Your task to perform on an android device: open app "Etsy: Buy & Sell Unique Items" (install if not already installed) and go to login screen Image 0: 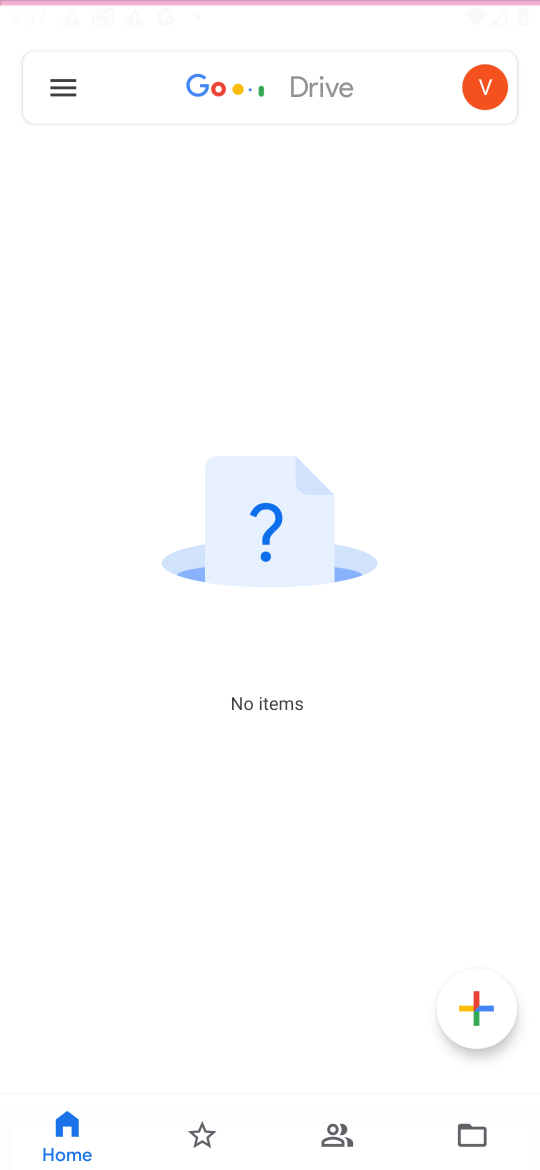
Step 0: press home button
Your task to perform on an android device: open app "Etsy: Buy & Sell Unique Items" (install if not already installed) and go to login screen Image 1: 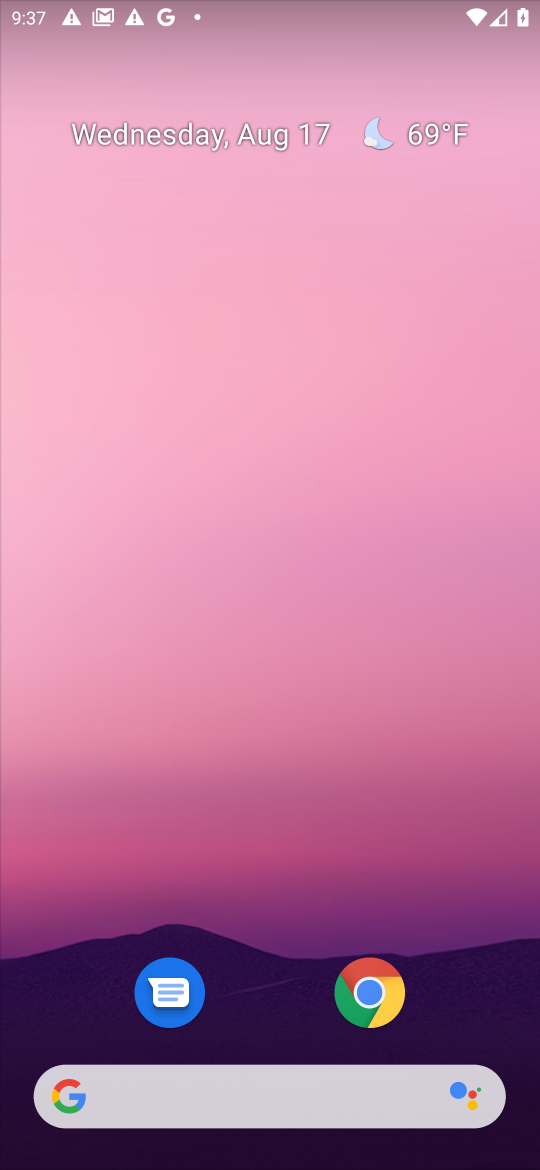
Step 1: drag from (469, 992) to (224, 63)
Your task to perform on an android device: open app "Etsy: Buy & Sell Unique Items" (install if not already installed) and go to login screen Image 2: 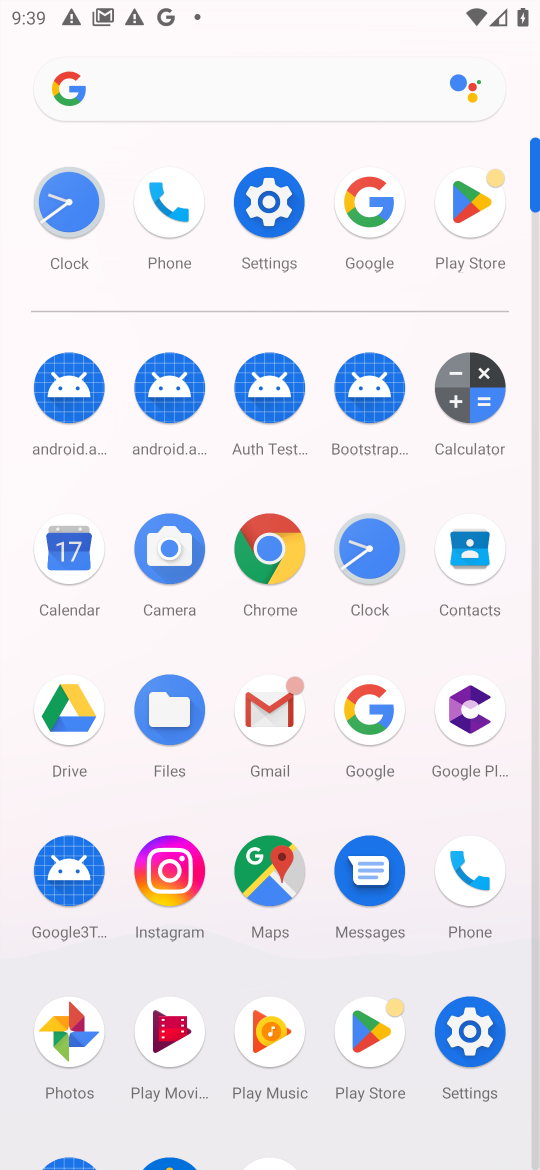
Step 2: click (364, 1047)
Your task to perform on an android device: open app "Etsy: Buy & Sell Unique Items" (install if not already installed) and go to login screen Image 3: 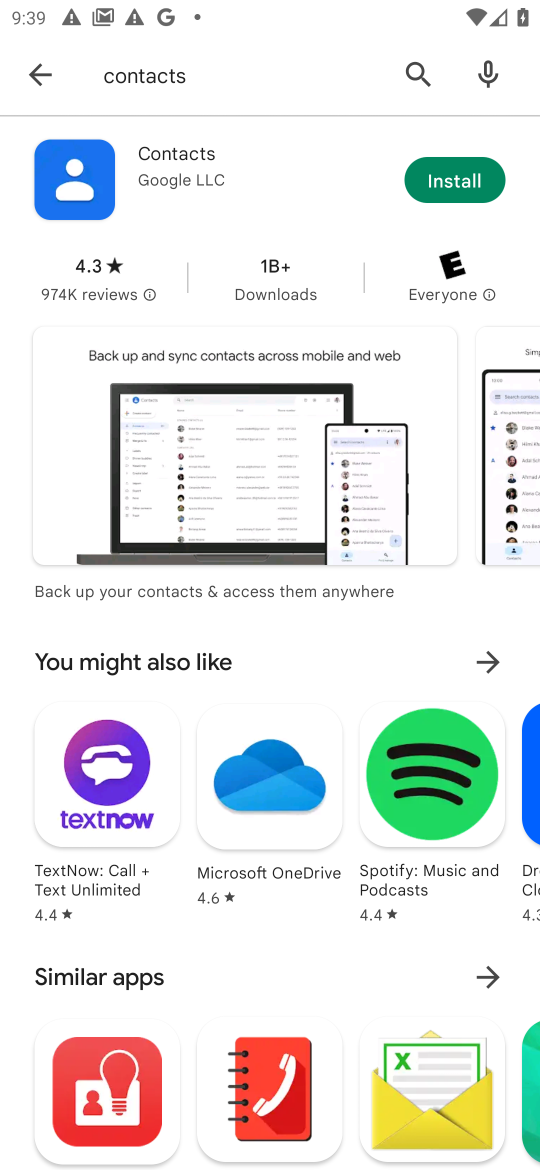
Step 3: press back button
Your task to perform on an android device: open app "Etsy: Buy & Sell Unique Items" (install if not already installed) and go to login screen Image 4: 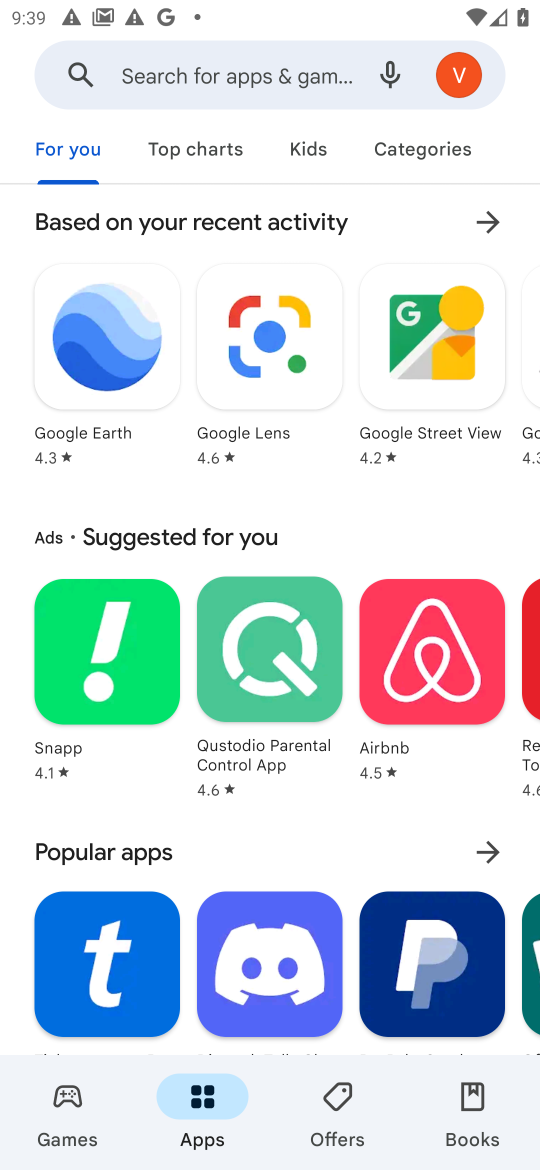
Step 4: click (144, 69)
Your task to perform on an android device: open app "Etsy: Buy & Sell Unique Items" (install if not already installed) and go to login screen Image 5: 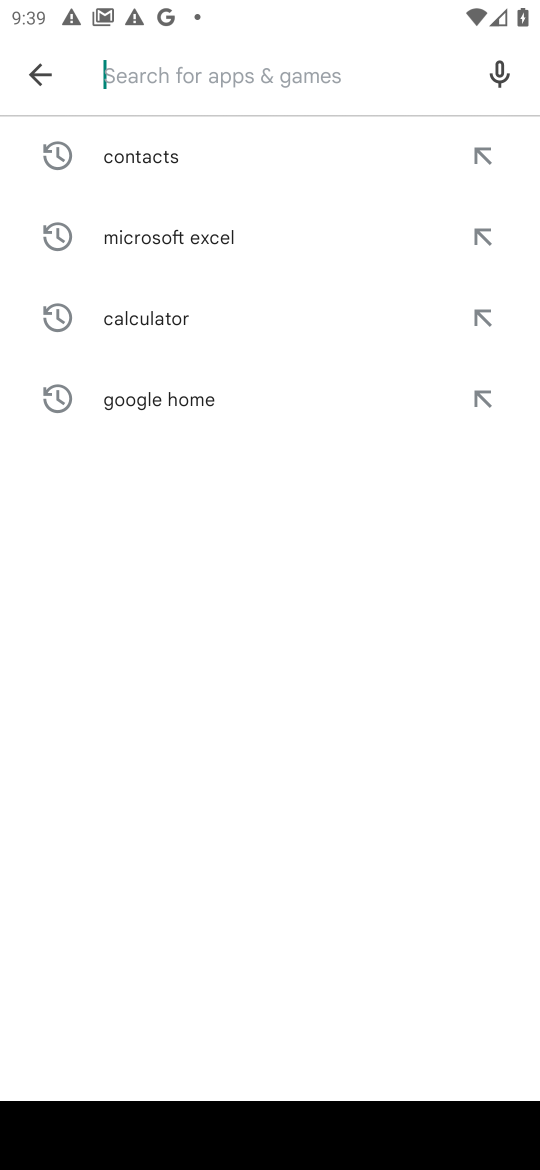
Step 5: type "Etsy: Buy & Sell Unique Items"
Your task to perform on an android device: open app "Etsy: Buy & Sell Unique Items" (install if not already installed) and go to login screen Image 6: 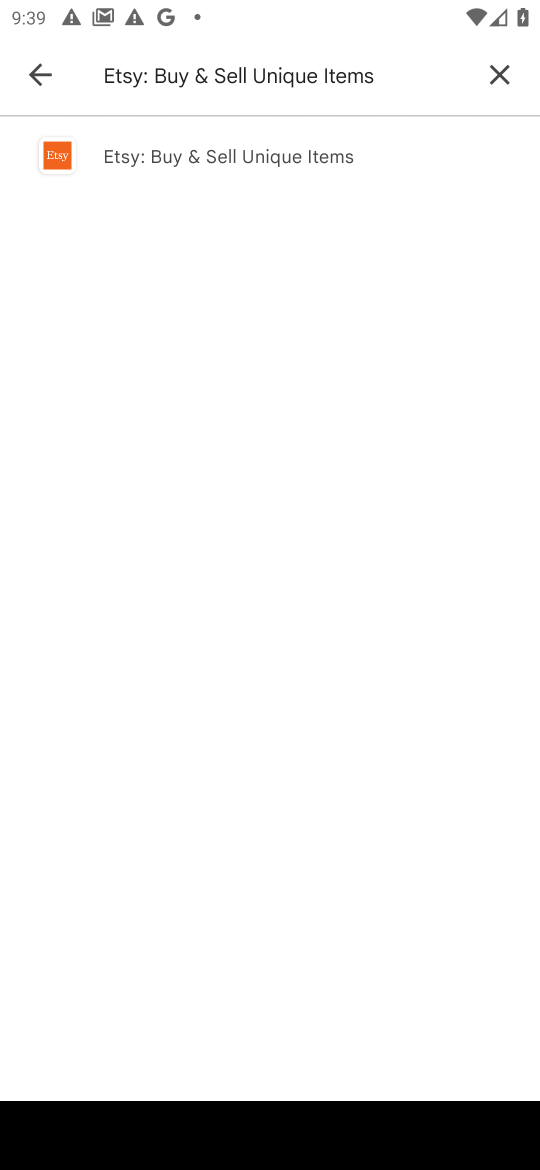
Step 6: click (229, 165)
Your task to perform on an android device: open app "Etsy: Buy & Sell Unique Items" (install if not already installed) and go to login screen Image 7: 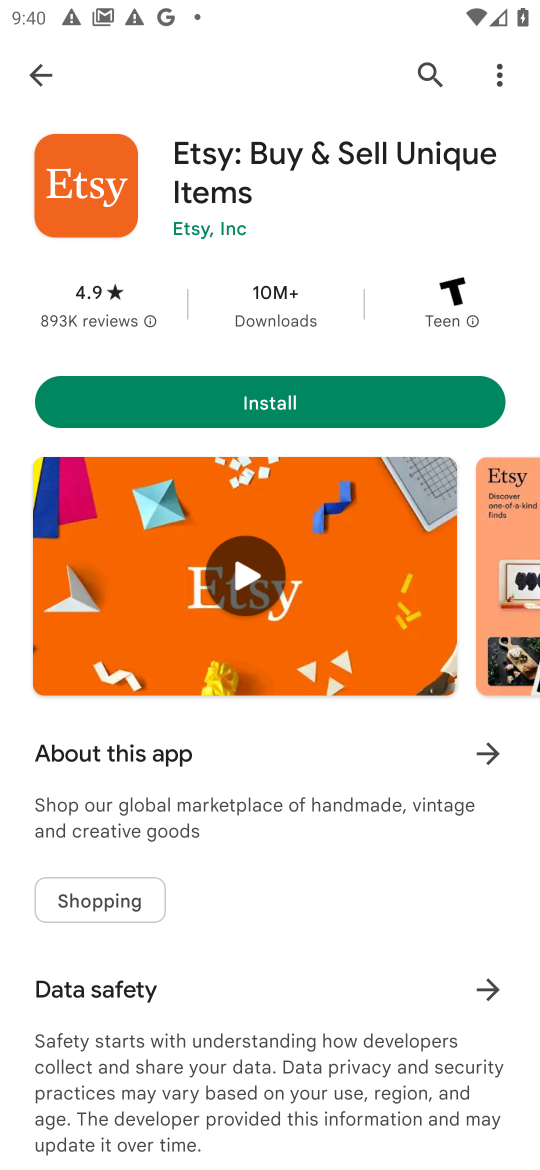
Step 7: task complete